Your task to perform on an android device: Turn off the flashlight Image 0: 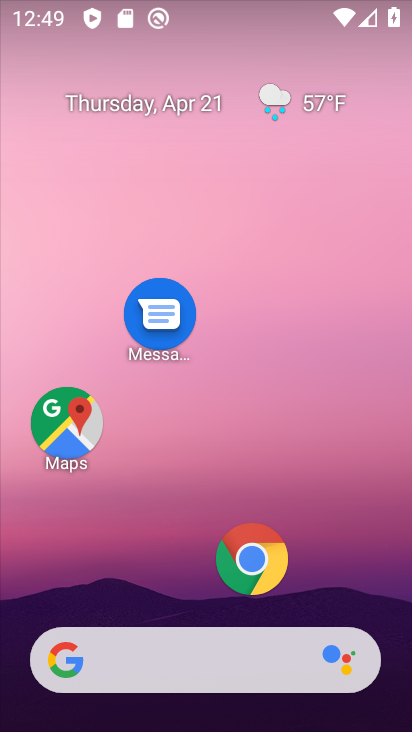
Step 0: drag from (211, 10) to (200, 490)
Your task to perform on an android device: Turn off the flashlight Image 1: 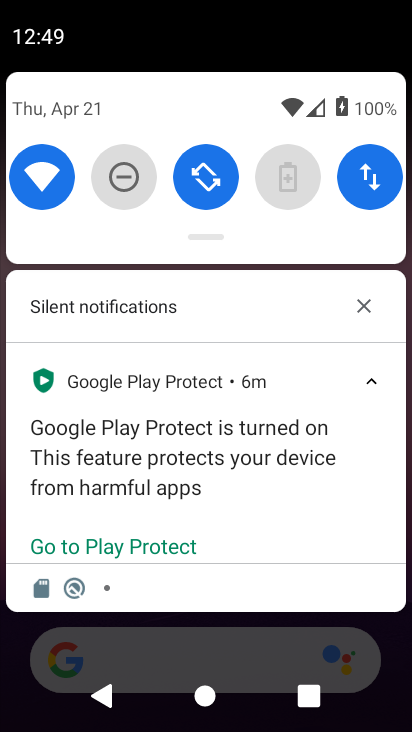
Step 1: drag from (253, 212) to (239, 520)
Your task to perform on an android device: Turn off the flashlight Image 2: 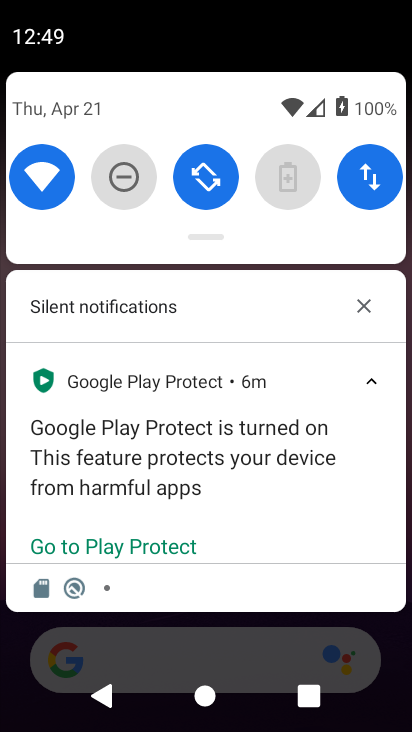
Step 2: drag from (193, 329) to (227, 516)
Your task to perform on an android device: Turn off the flashlight Image 3: 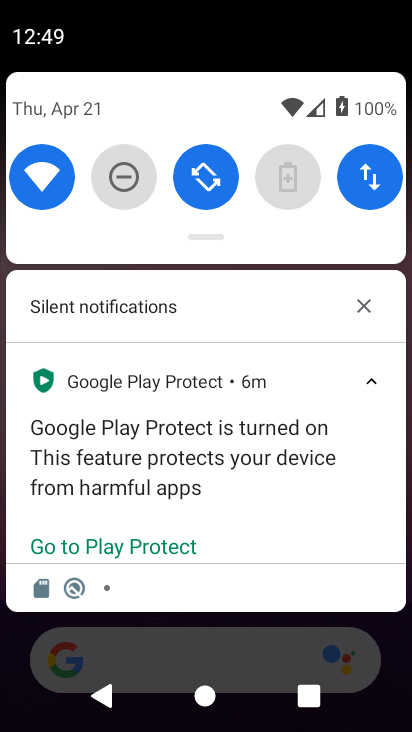
Step 3: drag from (300, 218) to (5, 224)
Your task to perform on an android device: Turn off the flashlight Image 4: 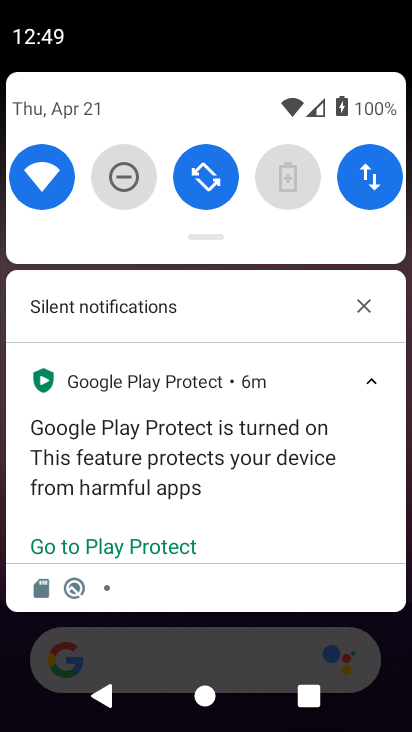
Step 4: drag from (214, 225) to (230, 610)
Your task to perform on an android device: Turn off the flashlight Image 5: 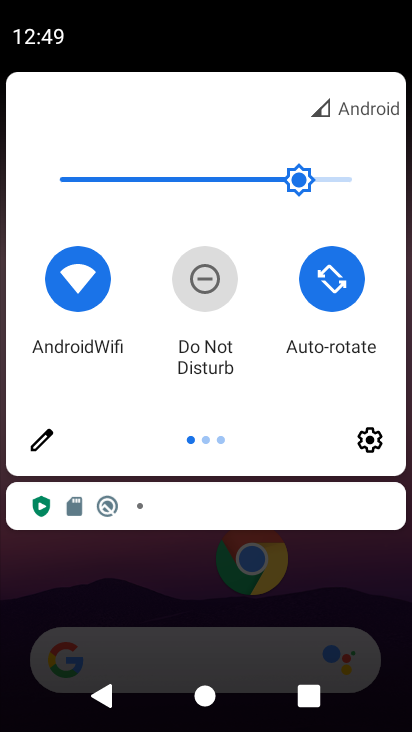
Step 5: drag from (359, 350) to (65, 376)
Your task to perform on an android device: Turn off the flashlight Image 6: 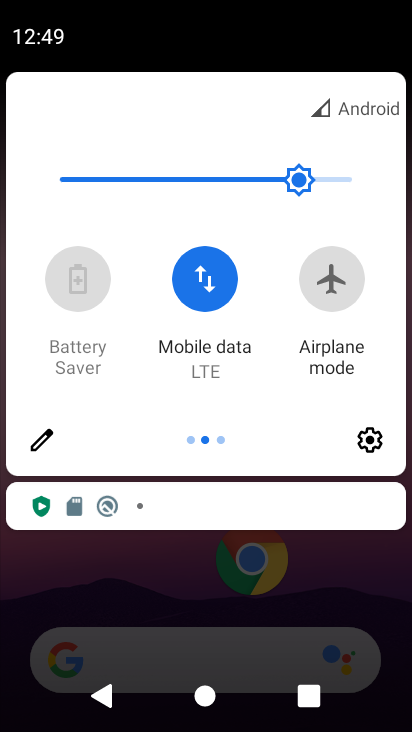
Step 6: drag from (384, 340) to (48, 346)
Your task to perform on an android device: Turn off the flashlight Image 7: 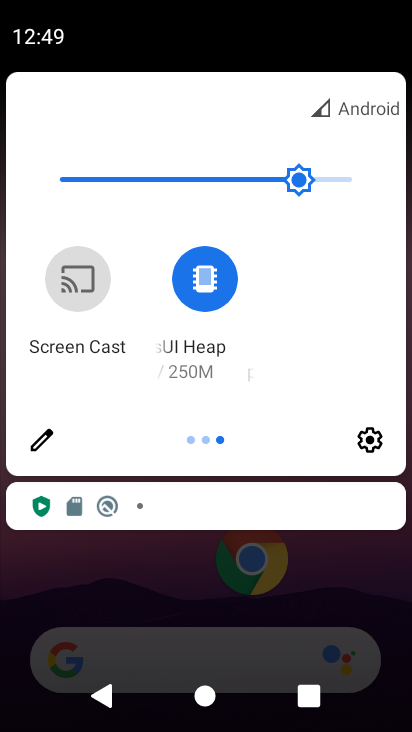
Step 7: click (34, 433)
Your task to perform on an android device: Turn off the flashlight Image 8: 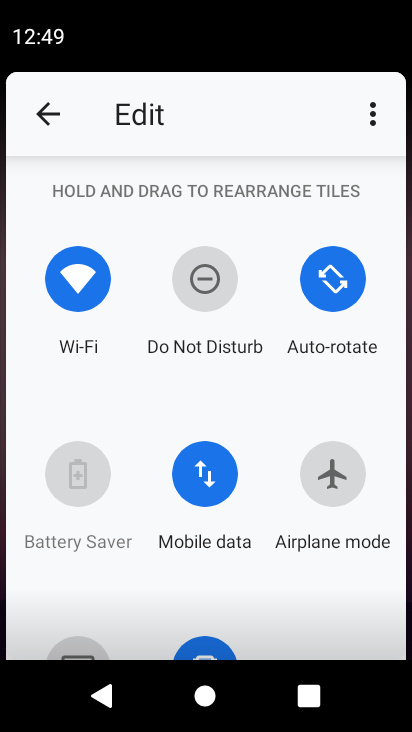
Step 8: task complete